Your task to perform on an android device: Open the phone app and click the voicemail tab. Image 0: 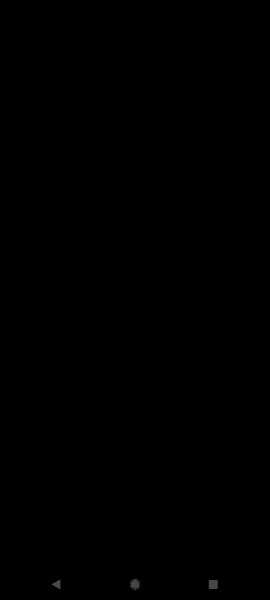
Step 0: press home button
Your task to perform on an android device: Open the phone app and click the voicemail tab. Image 1: 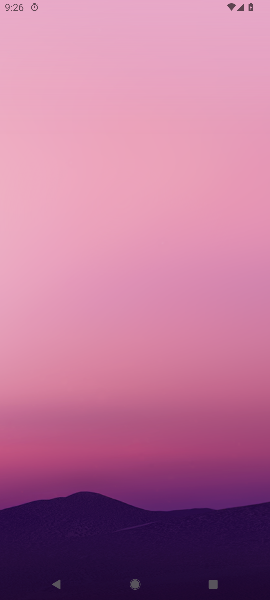
Step 1: press home button
Your task to perform on an android device: Open the phone app and click the voicemail tab. Image 2: 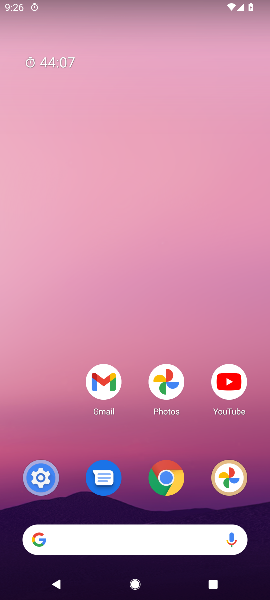
Step 2: drag from (138, 484) to (98, 54)
Your task to perform on an android device: Open the phone app and click the voicemail tab. Image 3: 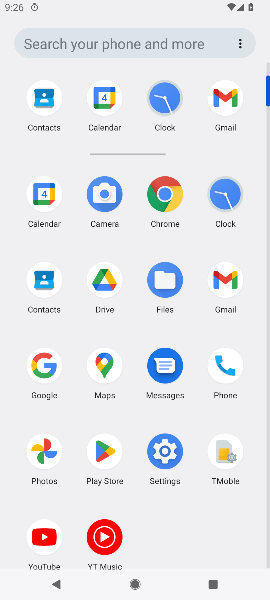
Step 3: click (49, 440)
Your task to perform on an android device: Open the phone app and click the voicemail tab. Image 4: 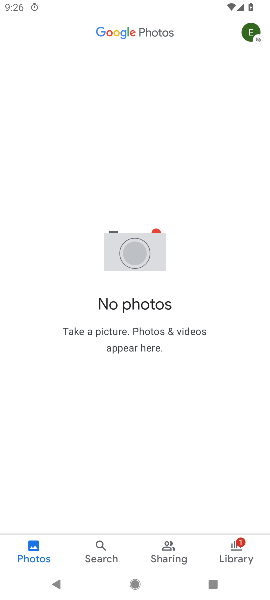
Step 4: press home button
Your task to perform on an android device: Open the phone app and click the voicemail tab. Image 5: 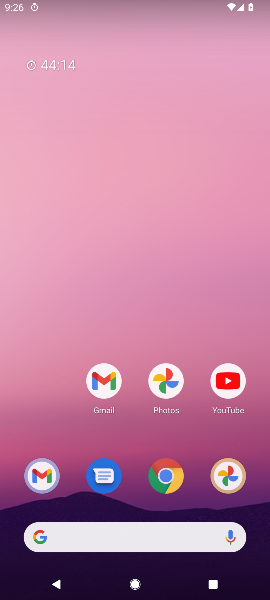
Step 5: drag from (140, 492) to (95, 104)
Your task to perform on an android device: Open the phone app and click the voicemail tab. Image 6: 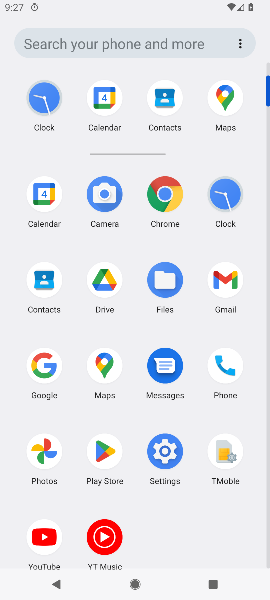
Step 6: click (232, 377)
Your task to perform on an android device: Open the phone app and click the voicemail tab. Image 7: 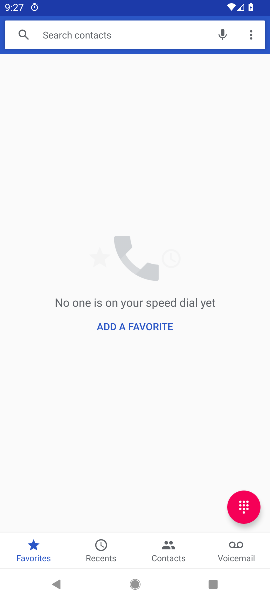
Step 7: click (234, 550)
Your task to perform on an android device: Open the phone app and click the voicemail tab. Image 8: 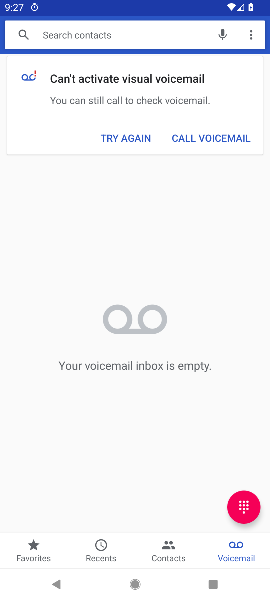
Step 8: task complete